Your task to perform on an android device: Open eBay Image 0: 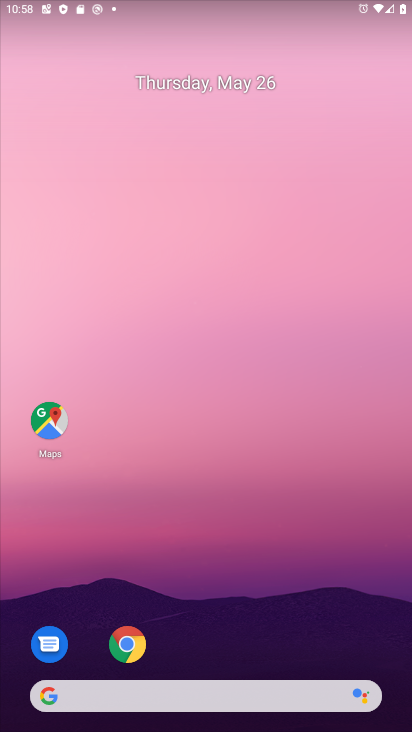
Step 0: click (117, 633)
Your task to perform on an android device: Open eBay Image 1: 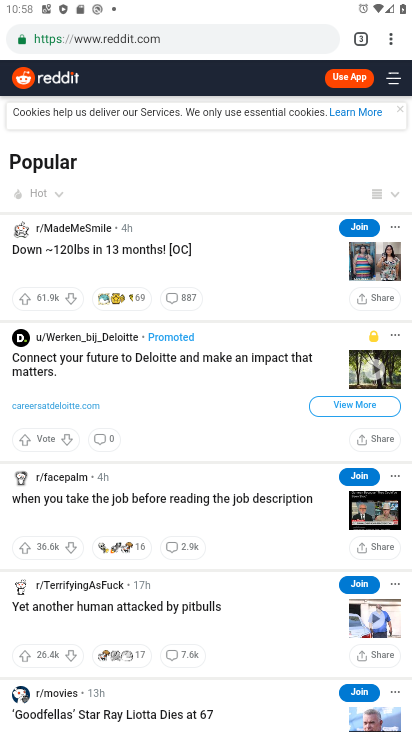
Step 1: click (357, 39)
Your task to perform on an android device: Open eBay Image 2: 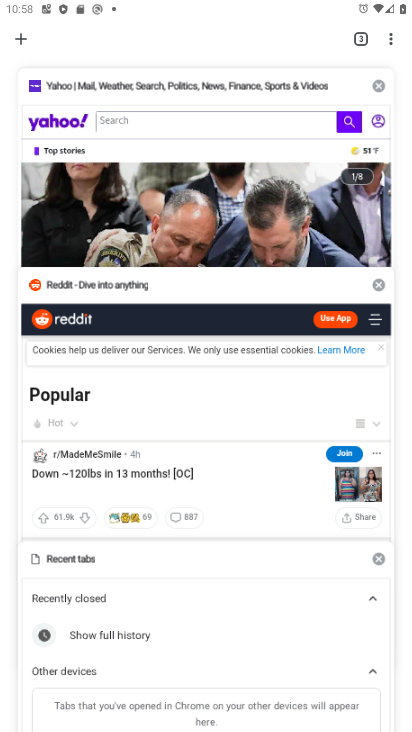
Step 2: click (23, 43)
Your task to perform on an android device: Open eBay Image 3: 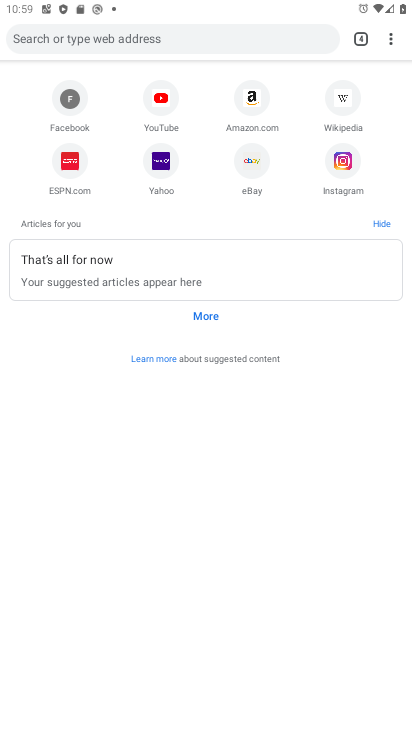
Step 3: click (254, 173)
Your task to perform on an android device: Open eBay Image 4: 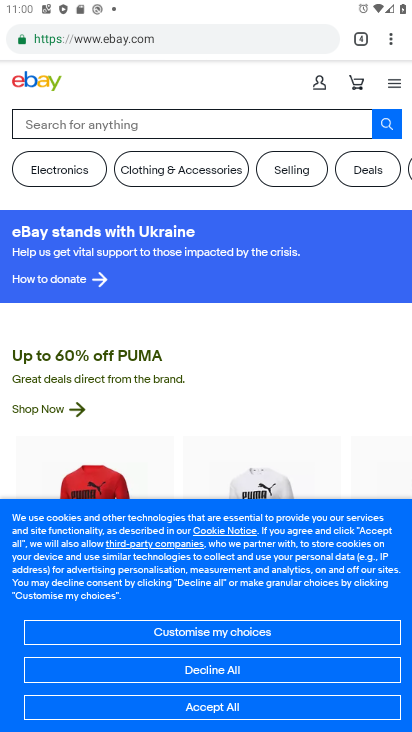
Step 4: task complete